Your task to perform on an android device: Open CNN.com Image 0: 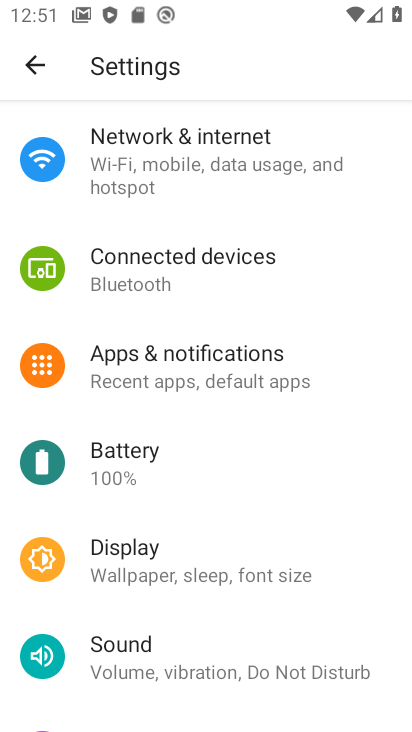
Step 0: press home button
Your task to perform on an android device: Open CNN.com Image 1: 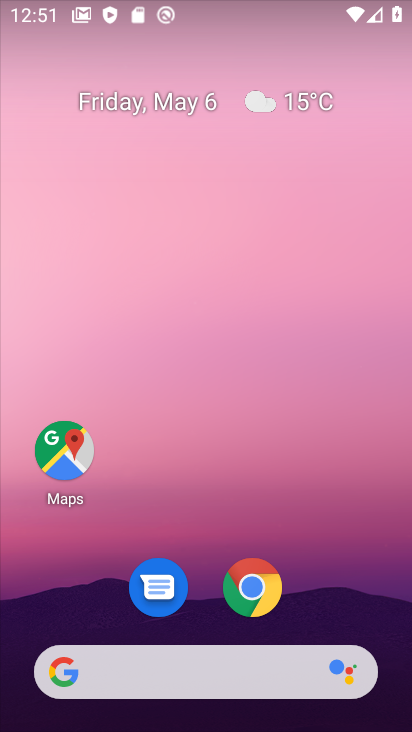
Step 1: click (249, 610)
Your task to perform on an android device: Open CNN.com Image 2: 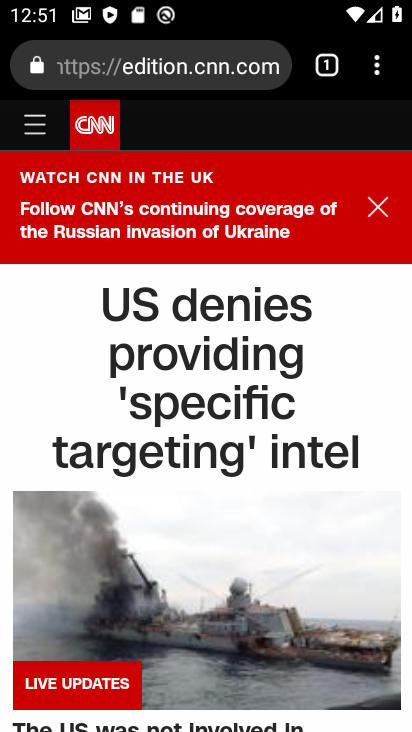
Step 2: task complete